Your task to perform on an android device: Find coffee shops on Maps Image 0: 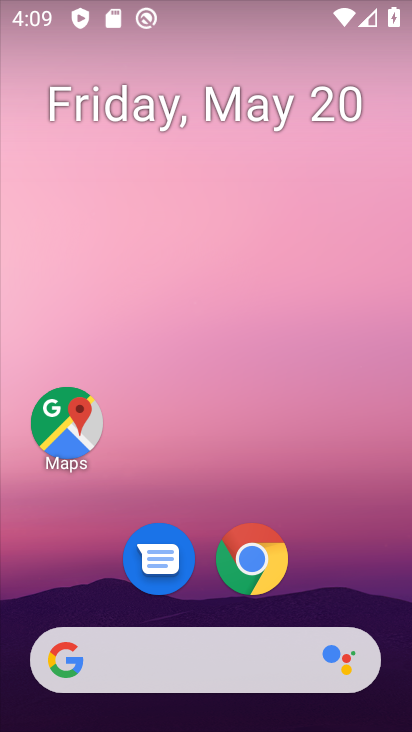
Step 0: click (74, 415)
Your task to perform on an android device: Find coffee shops on Maps Image 1: 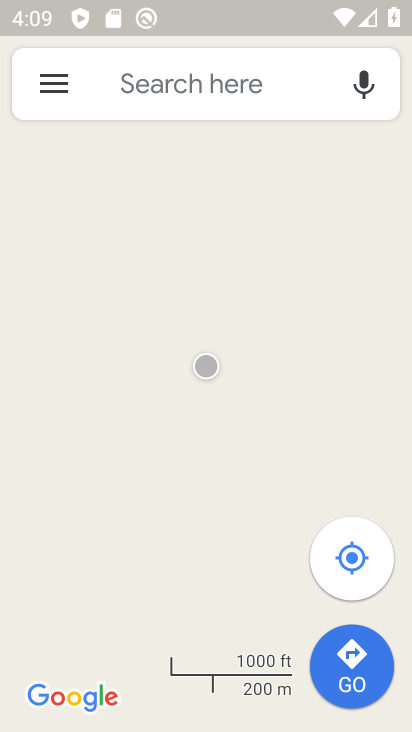
Step 1: click (153, 87)
Your task to perform on an android device: Find coffee shops on Maps Image 2: 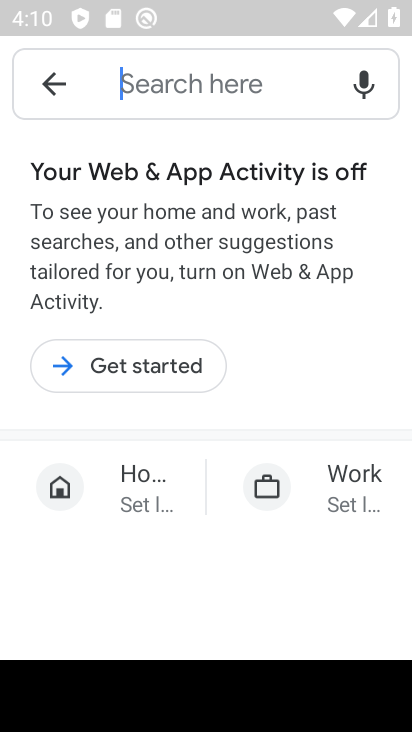
Step 2: drag from (159, 561) to (163, 232)
Your task to perform on an android device: Find coffee shops on Maps Image 3: 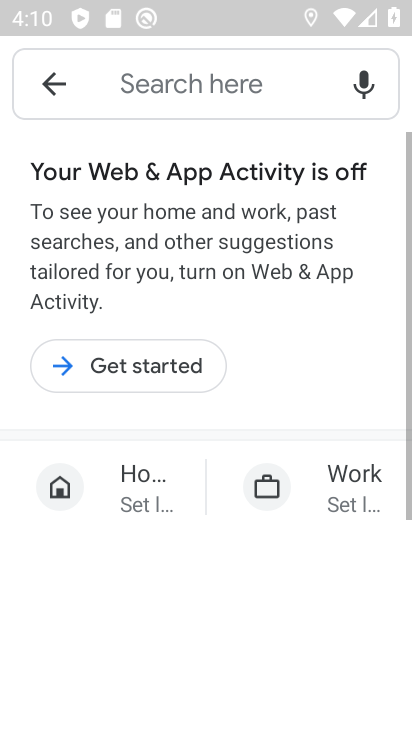
Step 3: click (167, 85)
Your task to perform on an android device: Find coffee shops on Maps Image 4: 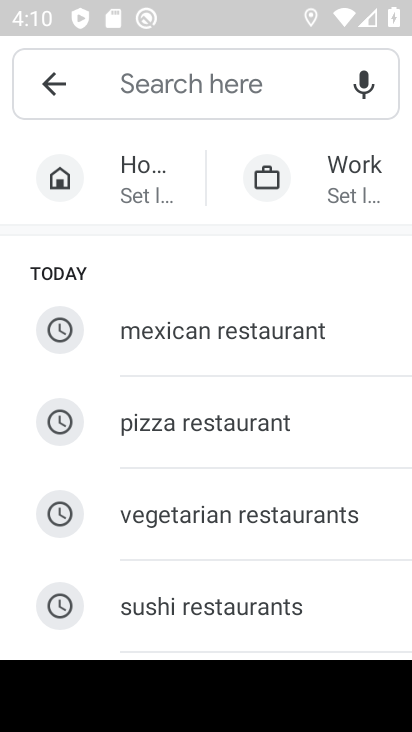
Step 4: drag from (182, 596) to (237, 261)
Your task to perform on an android device: Find coffee shops on Maps Image 5: 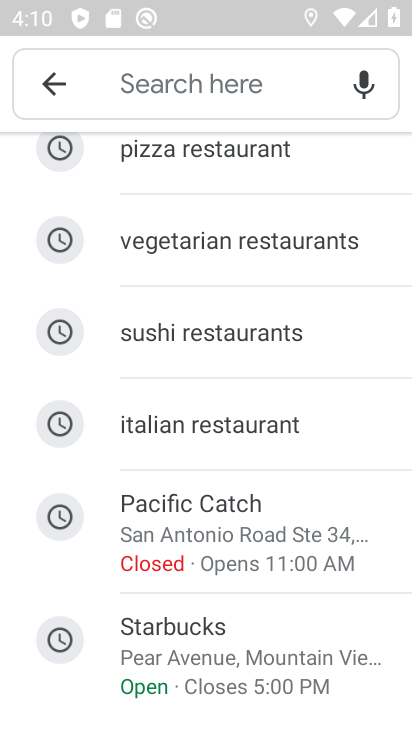
Step 5: drag from (200, 662) to (200, 305)
Your task to perform on an android device: Find coffee shops on Maps Image 6: 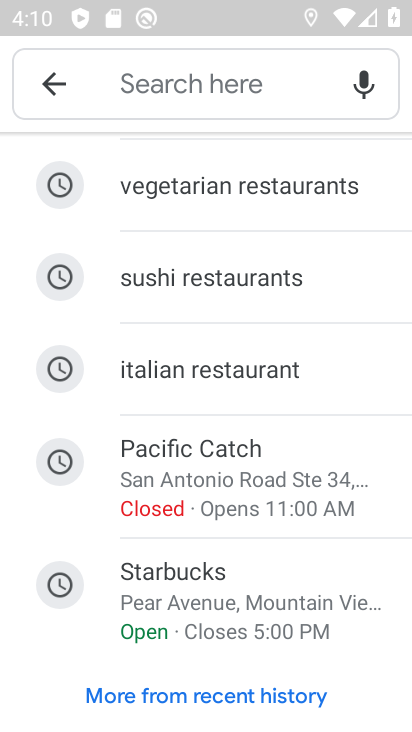
Step 6: drag from (194, 640) to (201, 251)
Your task to perform on an android device: Find coffee shops on Maps Image 7: 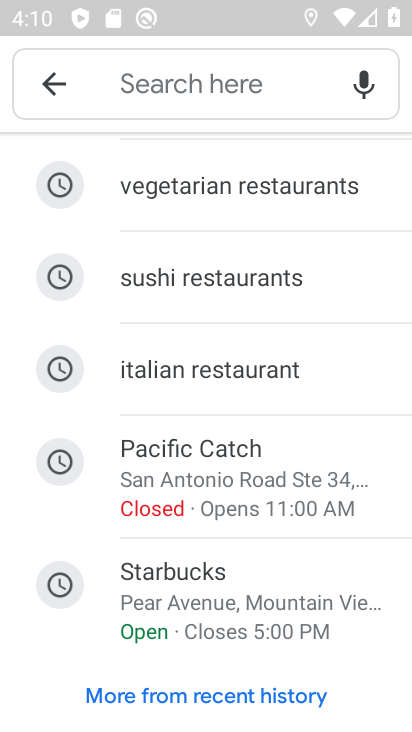
Step 7: click (160, 694)
Your task to perform on an android device: Find coffee shops on Maps Image 8: 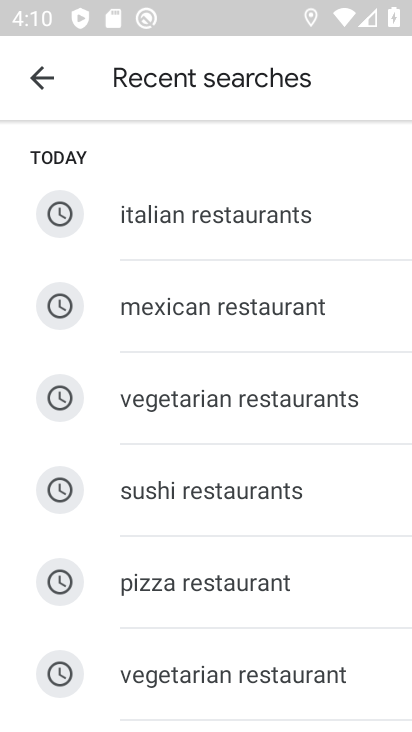
Step 8: drag from (196, 668) to (227, 214)
Your task to perform on an android device: Find coffee shops on Maps Image 9: 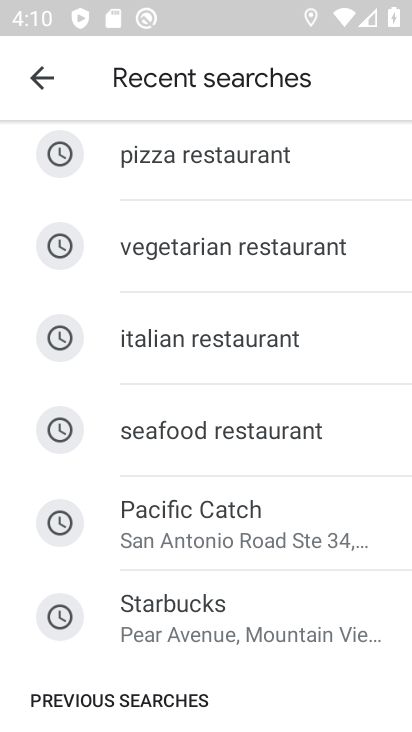
Step 9: drag from (151, 653) to (187, 247)
Your task to perform on an android device: Find coffee shops on Maps Image 10: 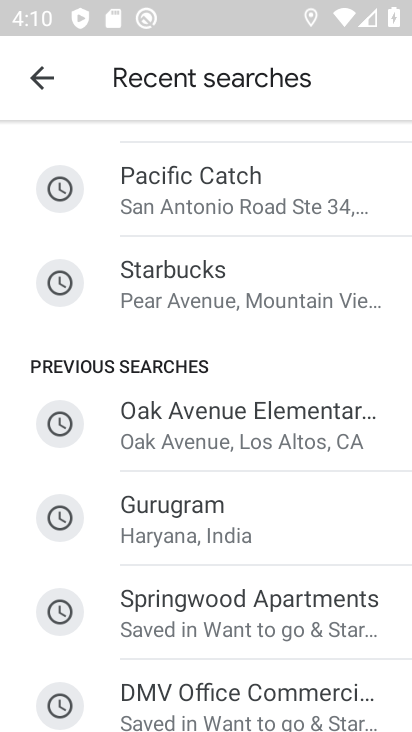
Step 10: drag from (161, 644) to (192, 232)
Your task to perform on an android device: Find coffee shops on Maps Image 11: 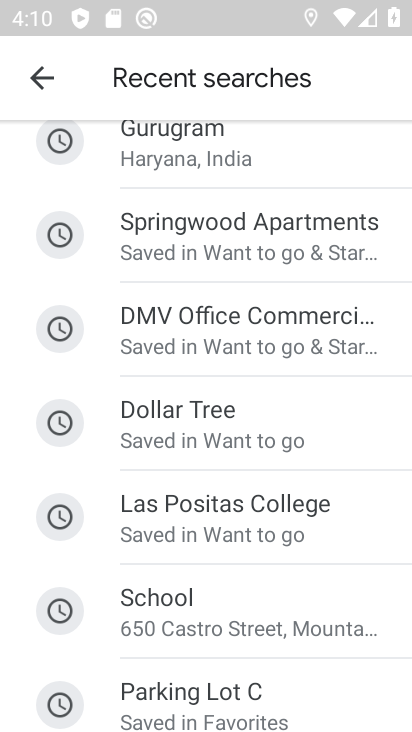
Step 11: drag from (145, 688) to (187, 326)
Your task to perform on an android device: Find coffee shops on Maps Image 12: 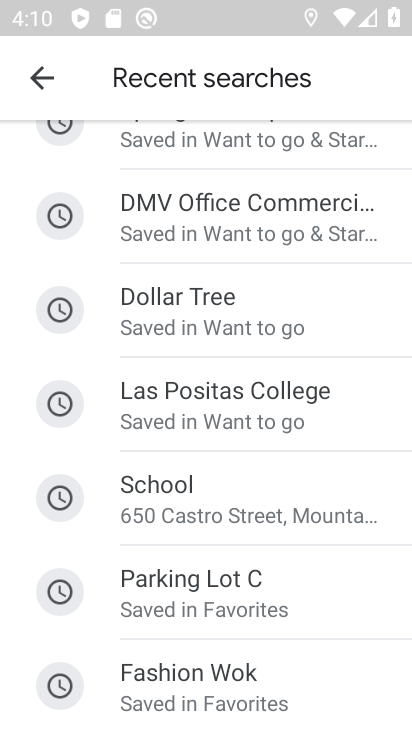
Step 12: type "coffee"
Your task to perform on an android device: Find coffee shops on Maps Image 13: 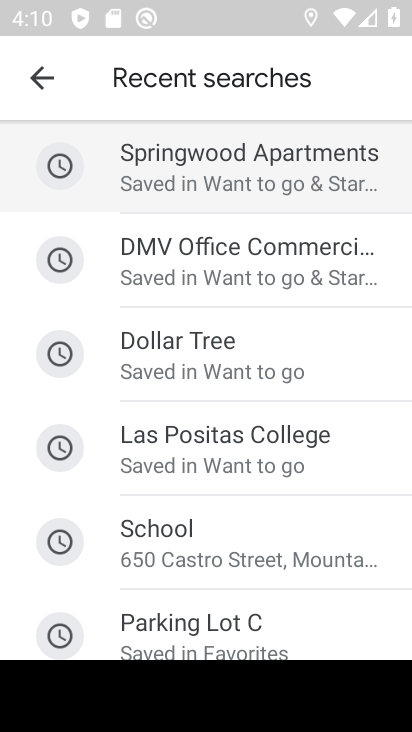
Step 13: drag from (232, 643) to (281, 251)
Your task to perform on an android device: Find coffee shops on Maps Image 14: 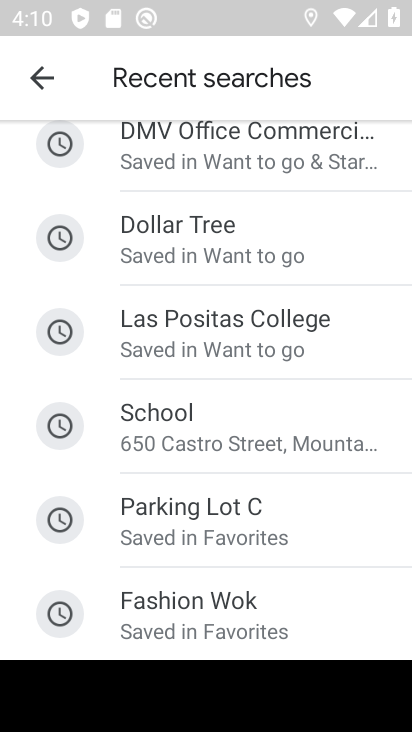
Step 14: drag from (254, 209) to (287, 602)
Your task to perform on an android device: Find coffee shops on Maps Image 15: 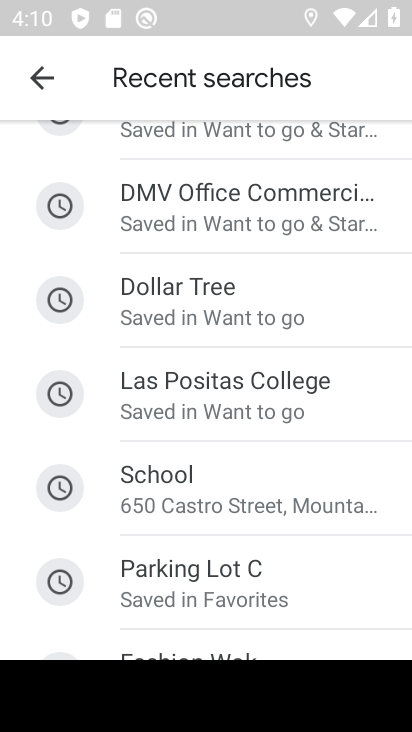
Step 15: drag from (291, 134) to (287, 604)
Your task to perform on an android device: Find coffee shops on Maps Image 16: 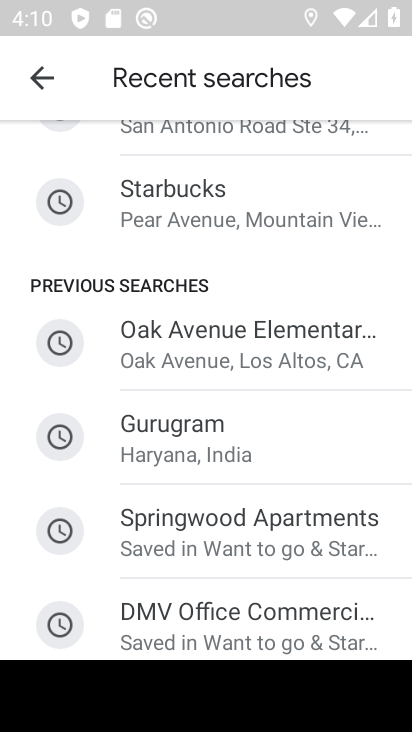
Step 16: click (39, 67)
Your task to perform on an android device: Find coffee shops on Maps Image 17: 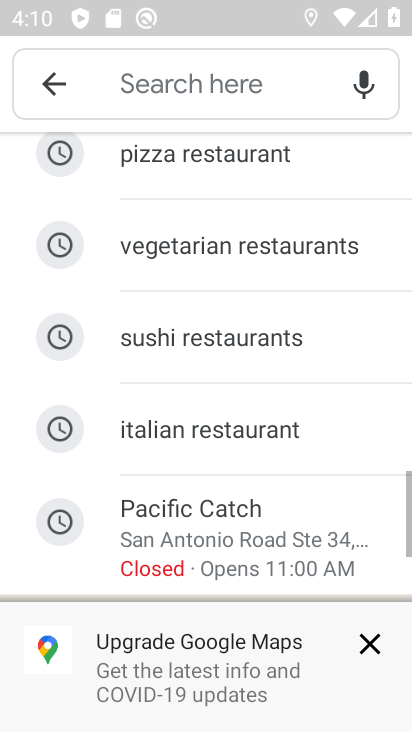
Step 17: click (170, 88)
Your task to perform on an android device: Find coffee shops on Maps Image 18: 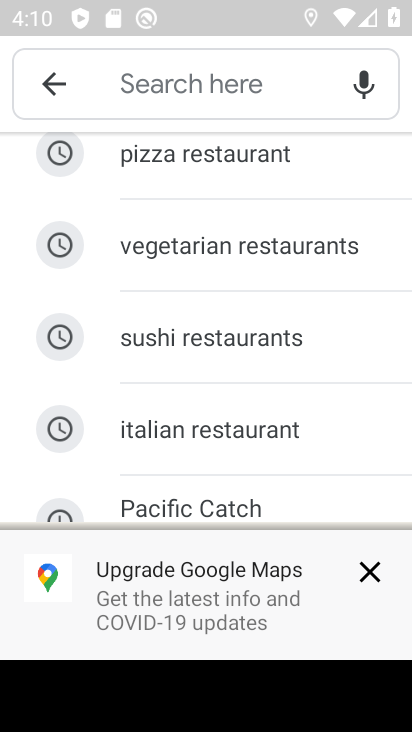
Step 18: type "coffee"
Your task to perform on an android device: Find coffee shops on Maps Image 19: 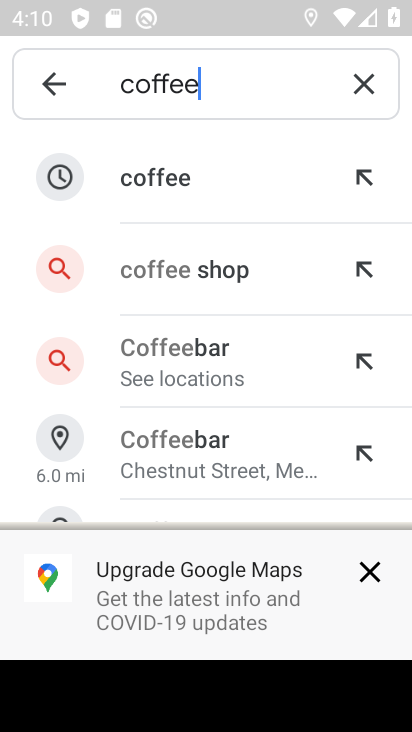
Step 19: click (182, 263)
Your task to perform on an android device: Find coffee shops on Maps Image 20: 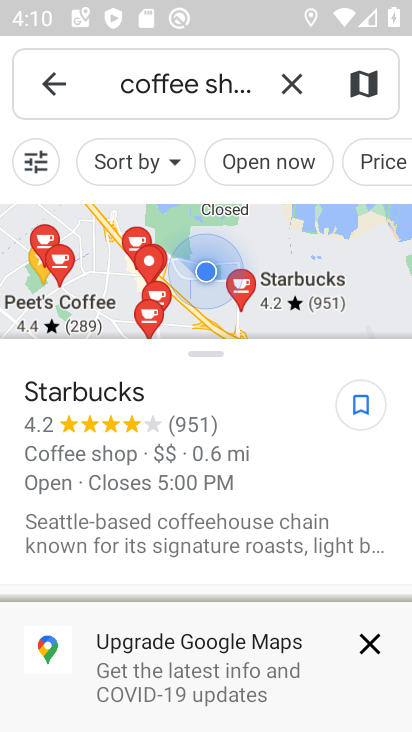
Step 20: task complete